Your task to perform on an android device: turn on wifi Image 0: 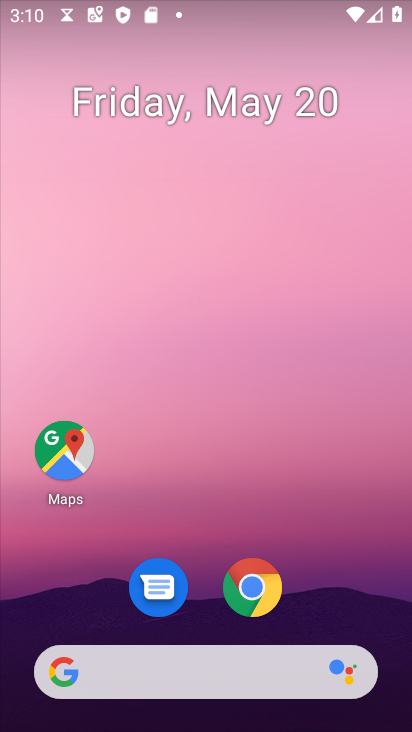
Step 0: drag from (370, 606) to (211, 66)
Your task to perform on an android device: turn on wifi Image 1: 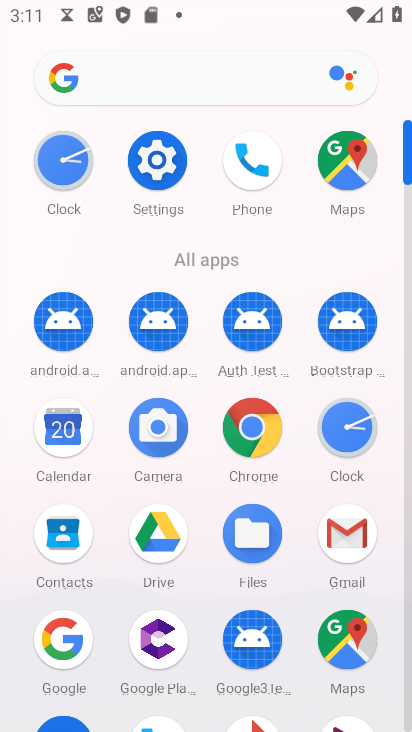
Step 1: click (168, 165)
Your task to perform on an android device: turn on wifi Image 2: 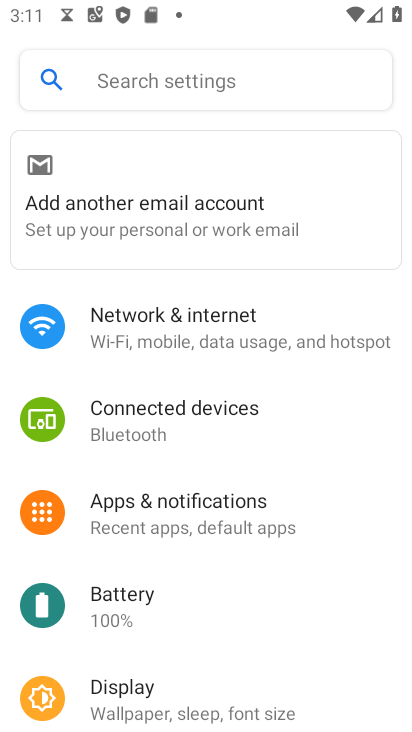
Step 2: click (204, 321)
Your task to perform on an android device: turn on wifi Image 3: 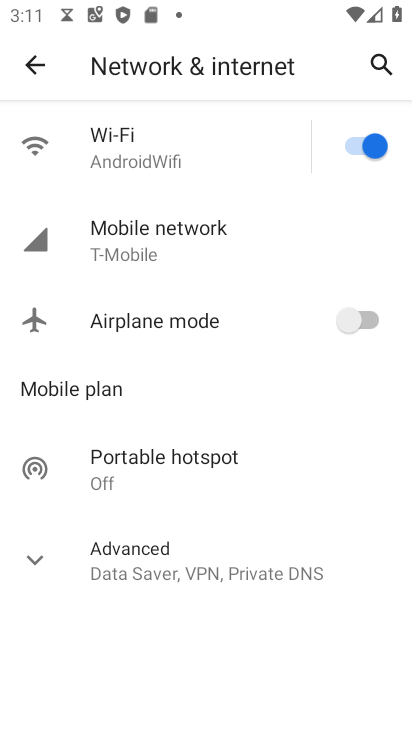
Step 3: task complete